Your task to perform on an android device: Open calendar and show me the third week of next month Image 0: 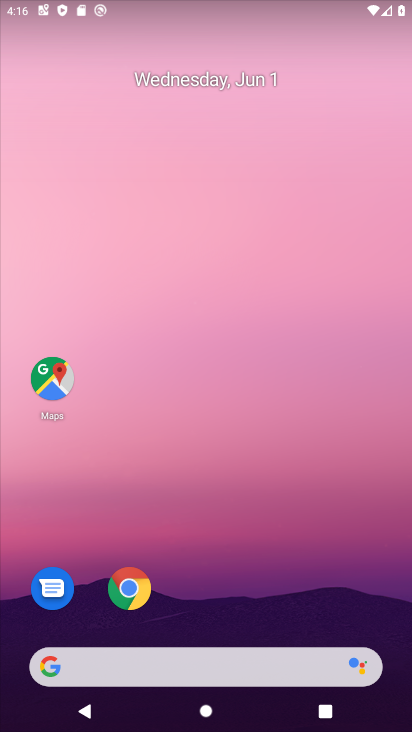
Step 0: drag from (284, 587) to (216, 257)
Your task to perform on an android device: Open calendar and show me the third week of next month Image 1: 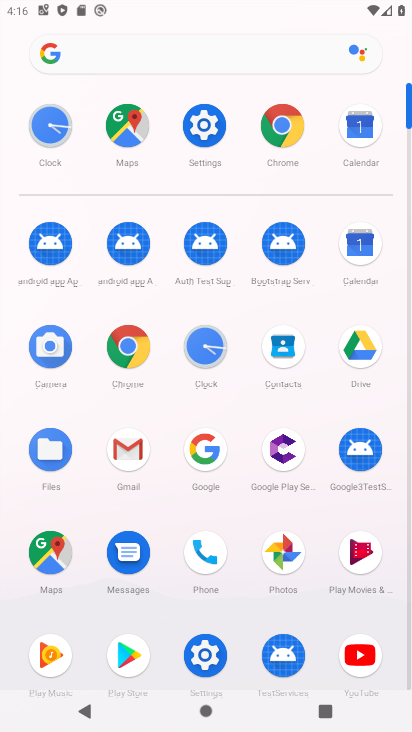
Step 1: click (367, 137)
Your task to perform on an android device: Open calendar and show me the third week of next month Image 2: 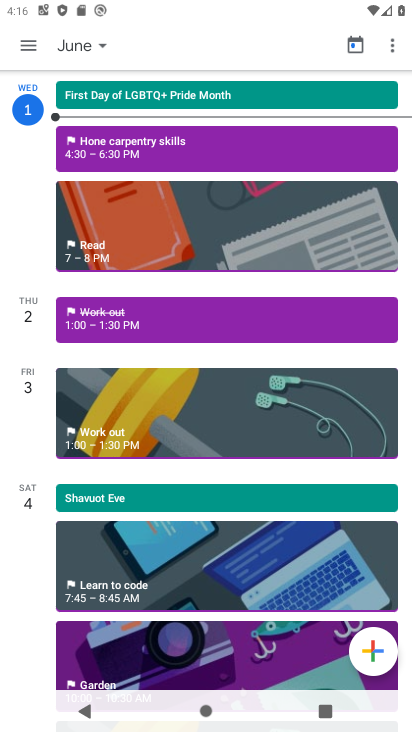
Step 2: click (61, 44)
Your task to perform on an android device: Open calendar and show me the third week of next month Image 3: 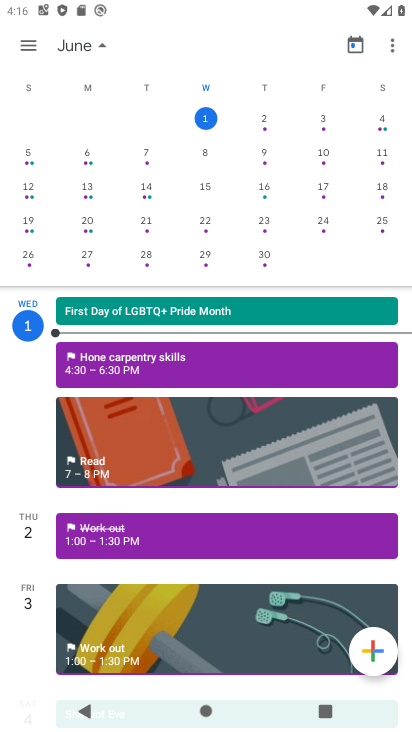
Step 3: click (263, 190)
Your task to perform on an android device: Open calendar and show me the third week of next month Image 4: 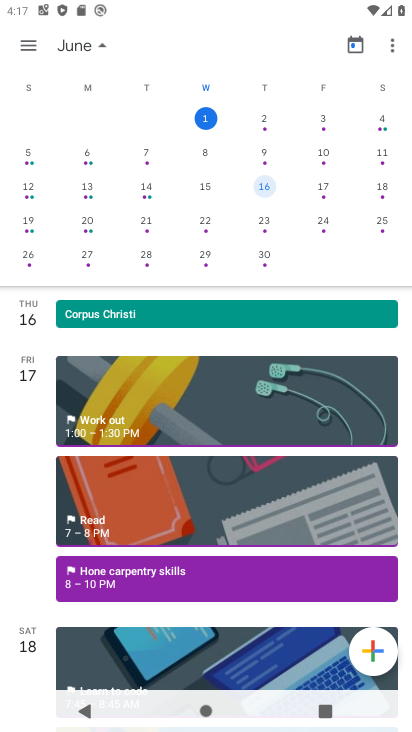
Step 4: click (26, 53)
Your task to perform on an android device: Open calendar and show me the third week of next month Image 5: 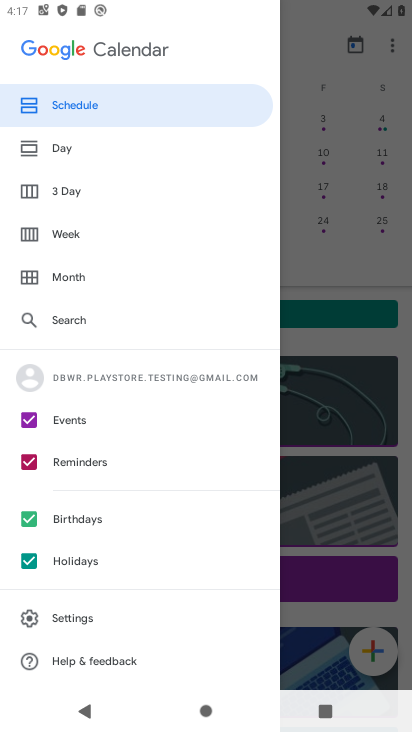
Step 5: click (60, 240)
Your task to perform on an android device: Open calendar and show me the third week of next month Image 6: 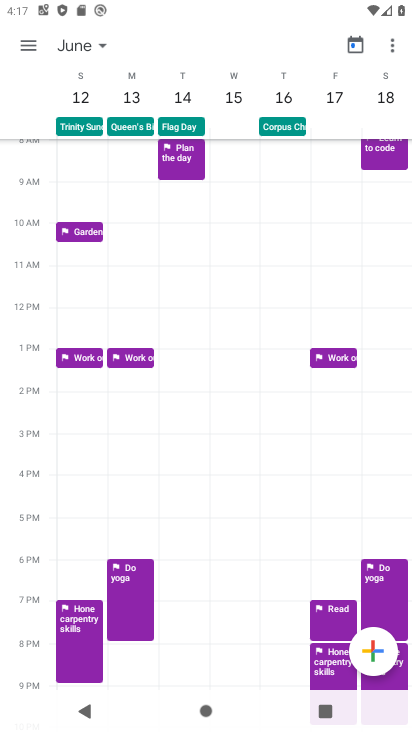
Step 6: task complete